Your task to perform on an android device: Open privacy settings Image 0: 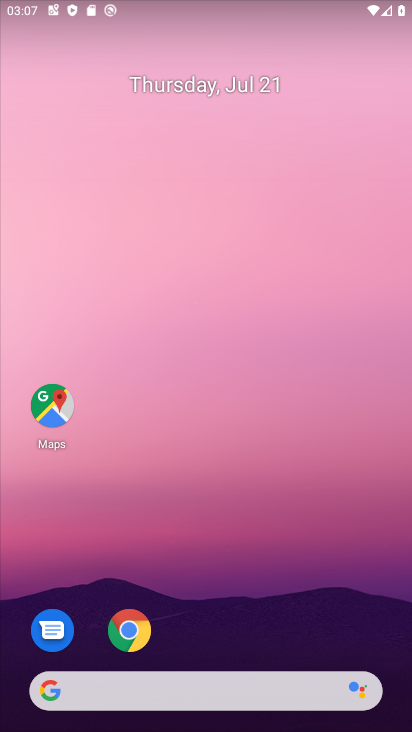
Step 0: drag from (228, 586) to (189, 175)
Your task to perform on an android device: Open privacy settings Image 1: 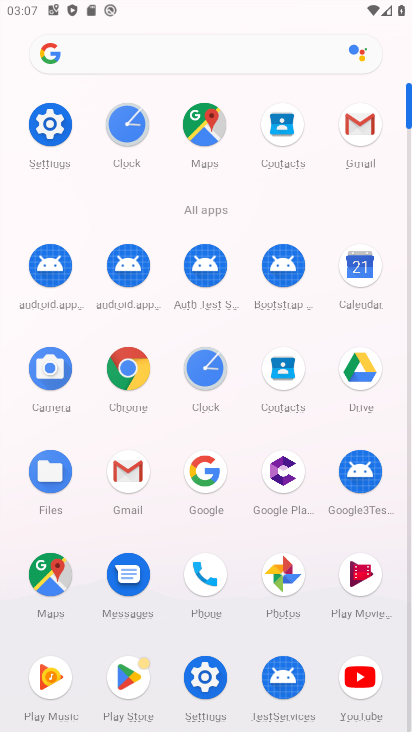
Step 1: click (32, 138)
Your task to perform on an android device: Open privacy settings Image 2: 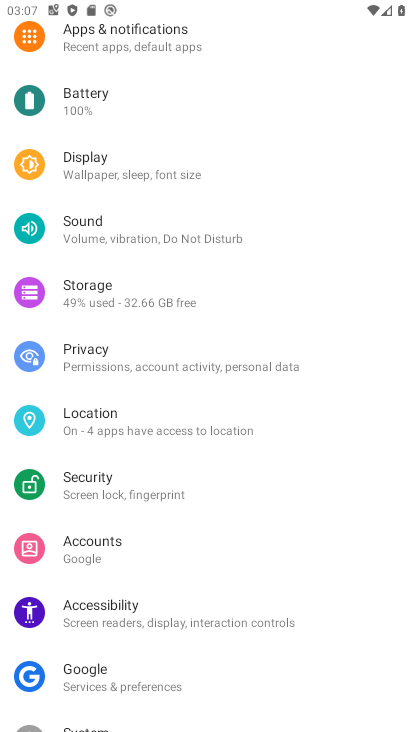
Step 2: click (169, 349)
Your task to perform on an android device: Open privacy settings Image 3: 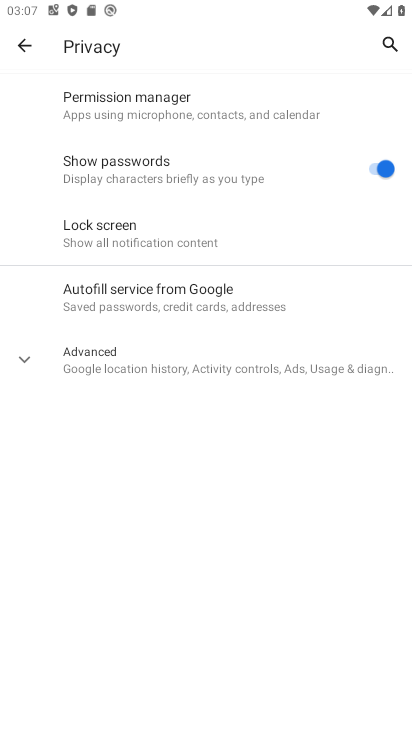
Step 3: task complete